Your task to perform on an android device: Go to CNN.com Image 0: 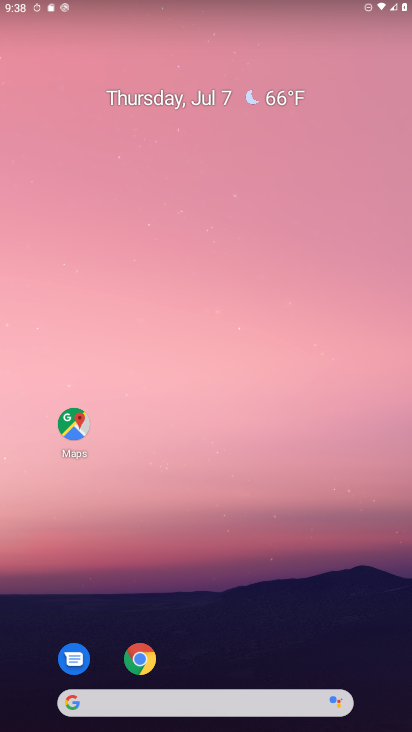
Step 0: drag from (395, 668) to (267, 74)
Your task to perform on an android device: Go to CNN.com Image 1: 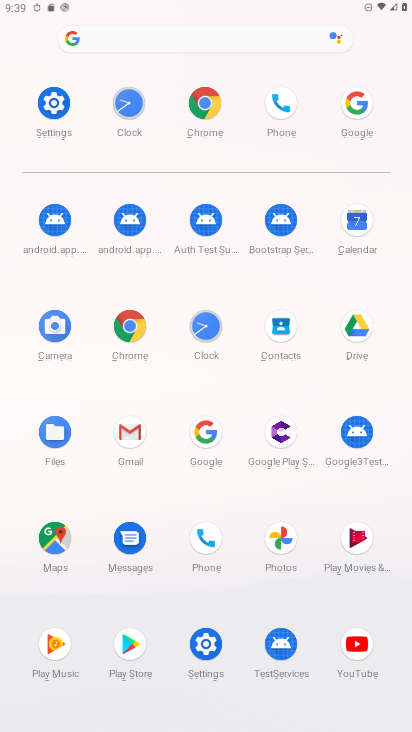
Step 1: click (206, 439)
Your task to perform on an android device: Go to CNN.com Image 2: 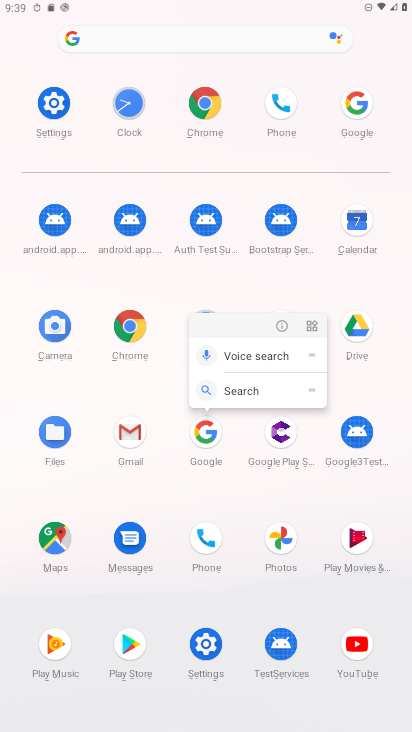
Step 2: click (206, 439)
Your task to perform on an android device: Go to CNN.com Image 3: 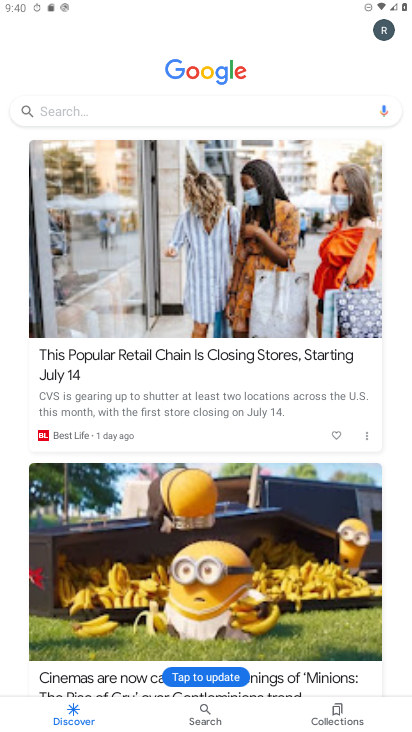
Step 3: click (93, 115)
Your task to perform on an android device: Go to CNN.com Image 4: 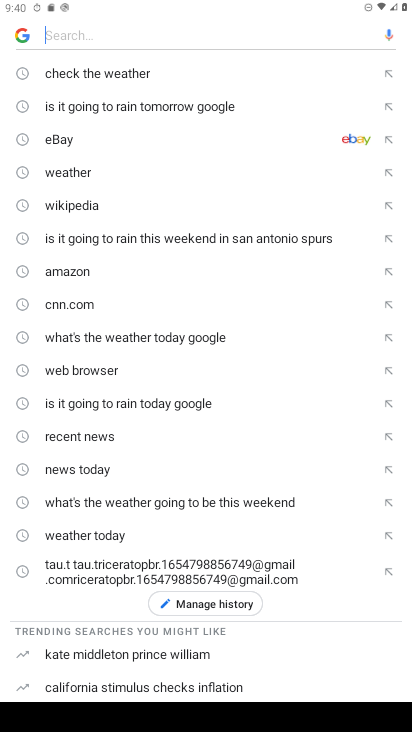
Step 4: click (55, 300)
Your task to perform on an android device: Go to CNN.com Image 5: 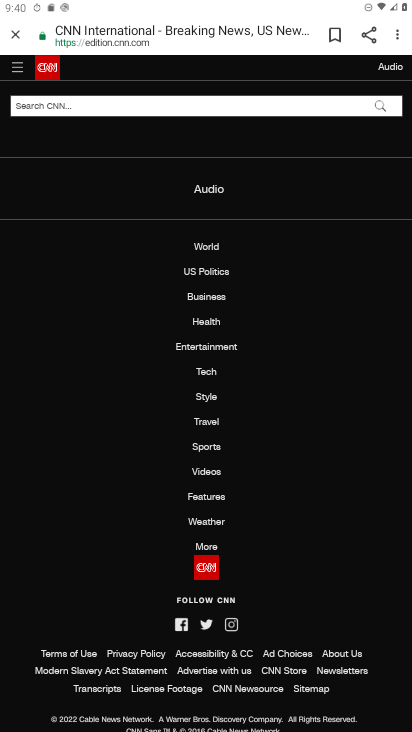
Step 5: task complete